Your task to perform on an android device: Go to internet settings Image 0: 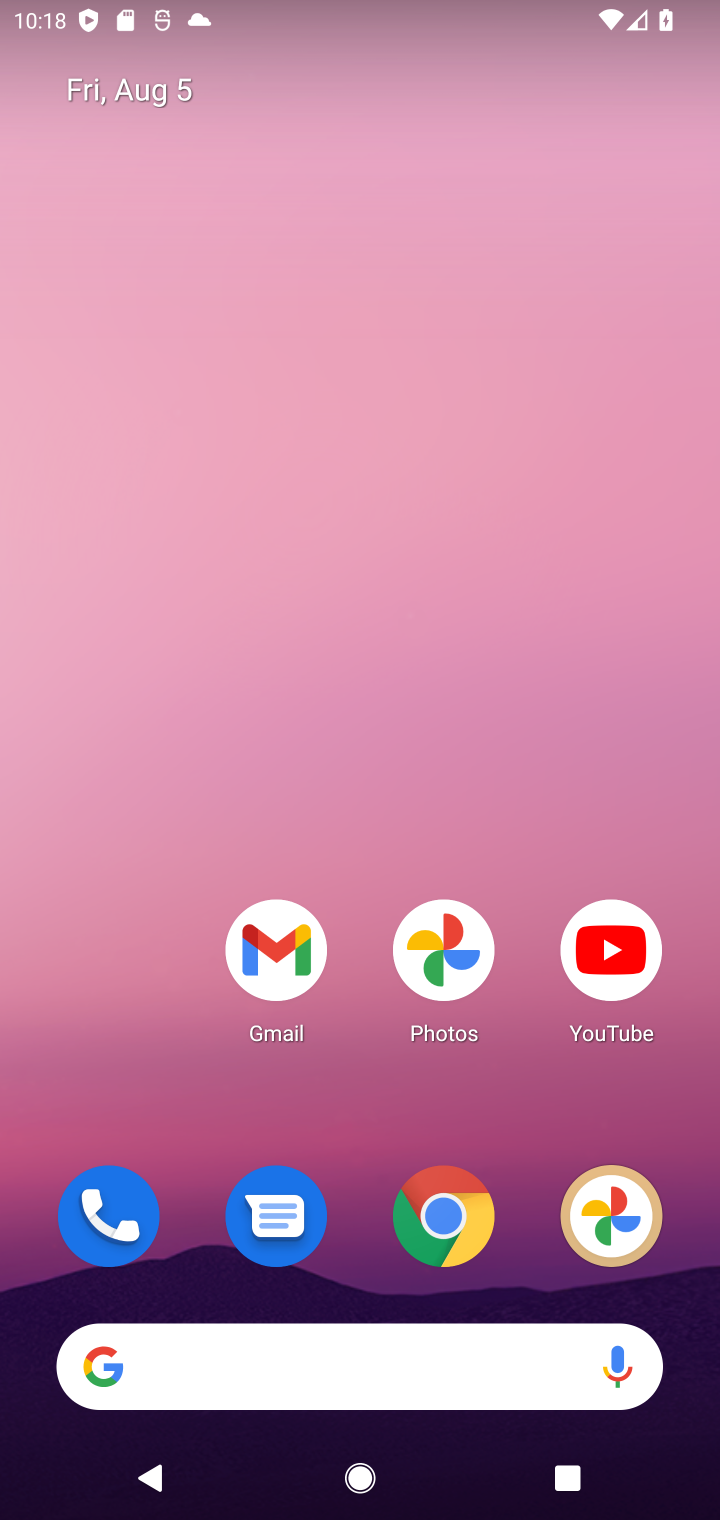
Step 0: drag from (341, 1312) to (396, 45)
Your task to perform on an android device: Go to internet settings Image 1: 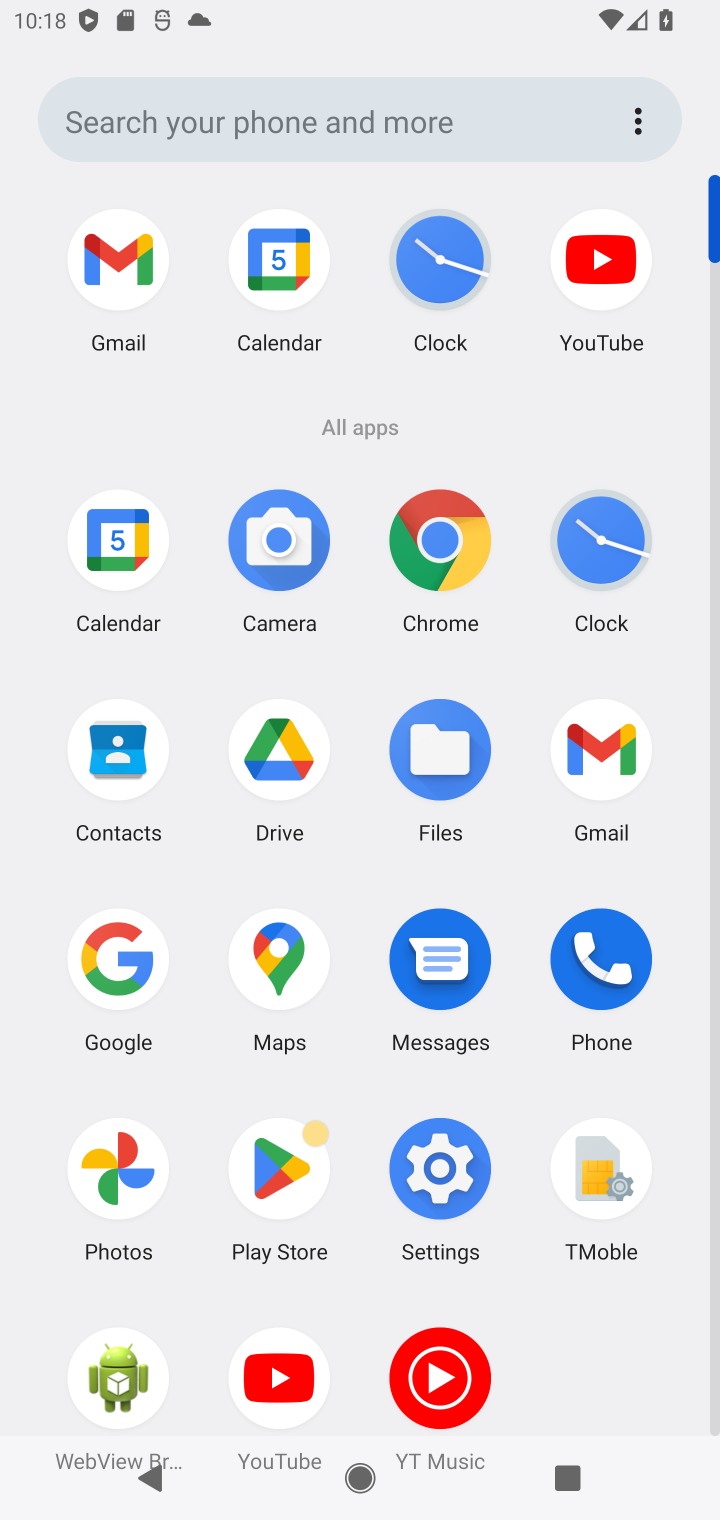
Step 1: click (454, 1162)
Your task to perform on an android device: Go to internet settings Image 2: 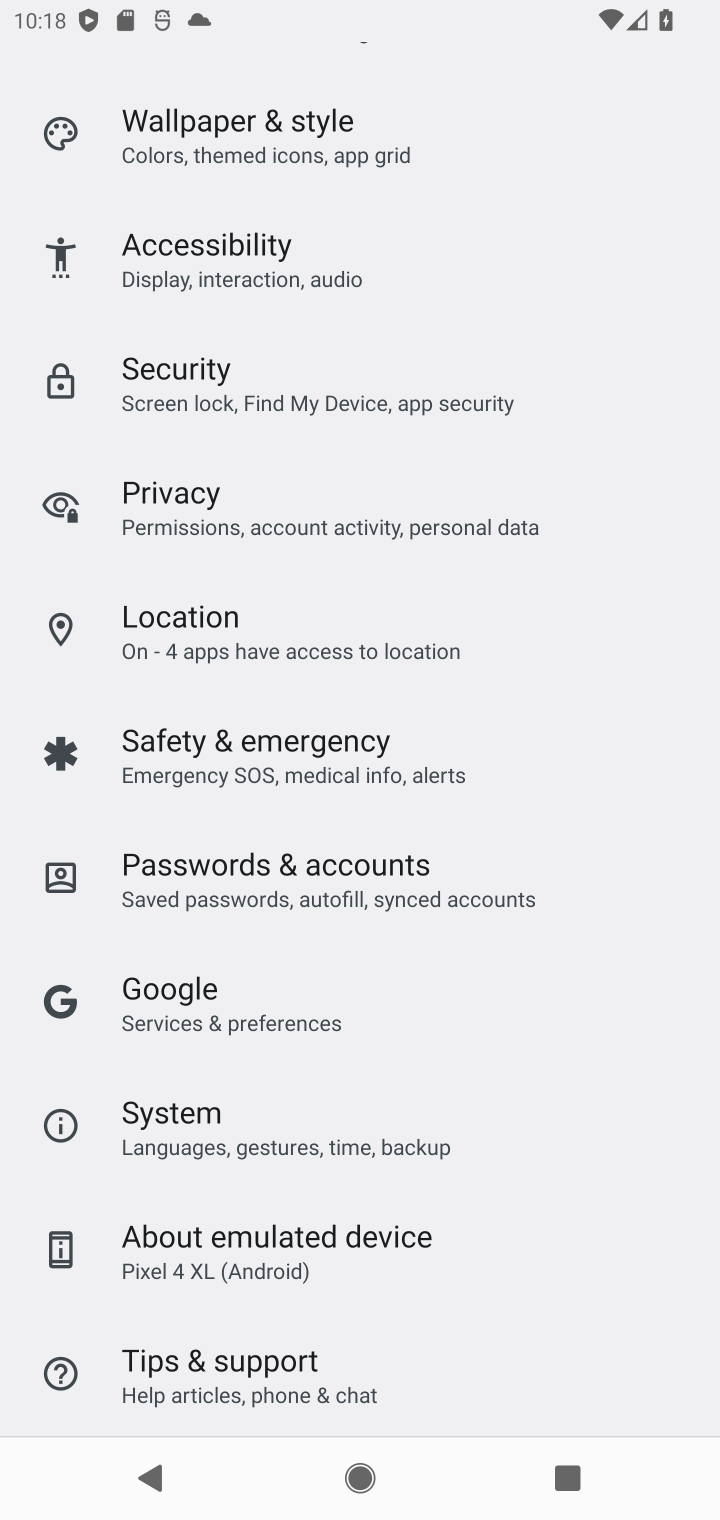
Step 2: drag from (532, 364) to (529, 1367)
Your task to perform on an android device: Go to internet settings Image 3: 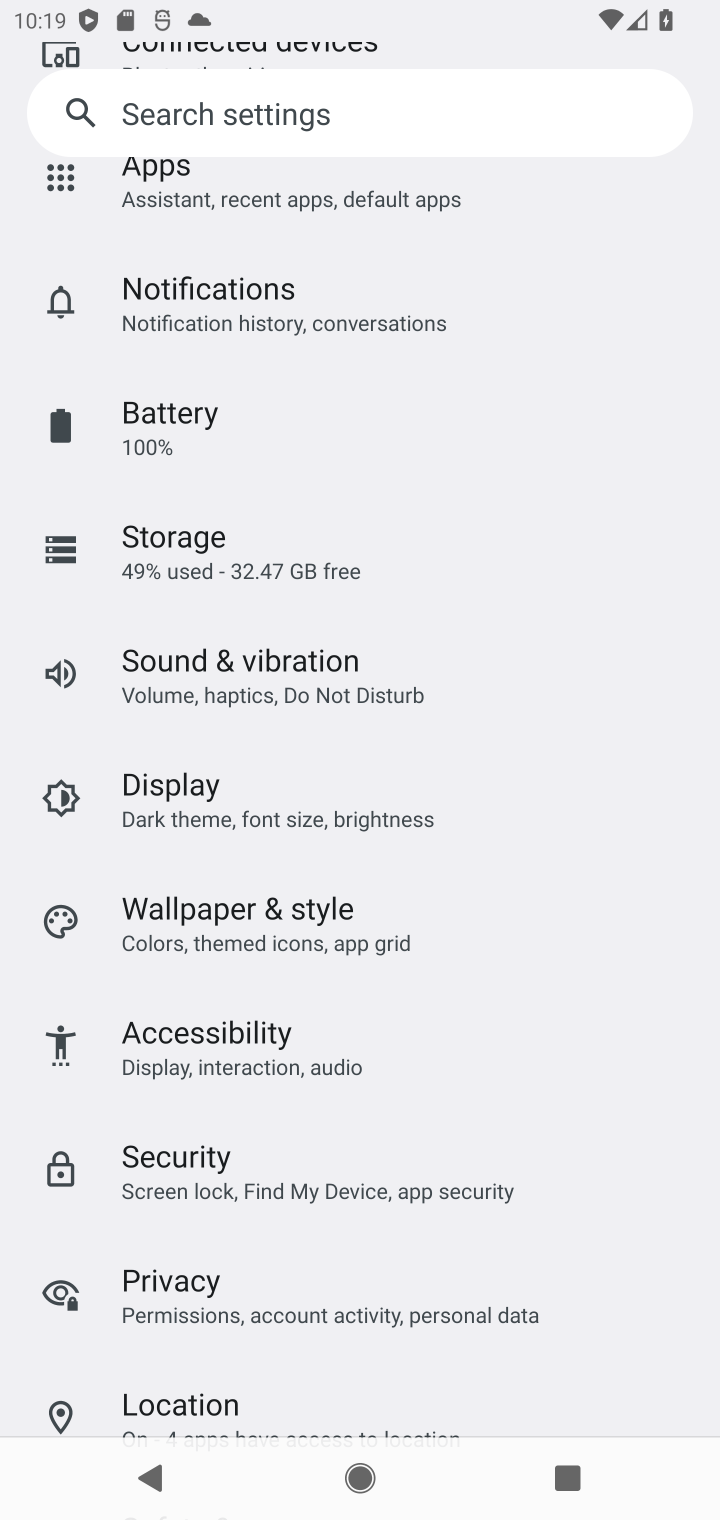
Step 3: drag from (659, 277) to (680, 1157)
Your task to perform on an android device: Go to internet settings Image 4: 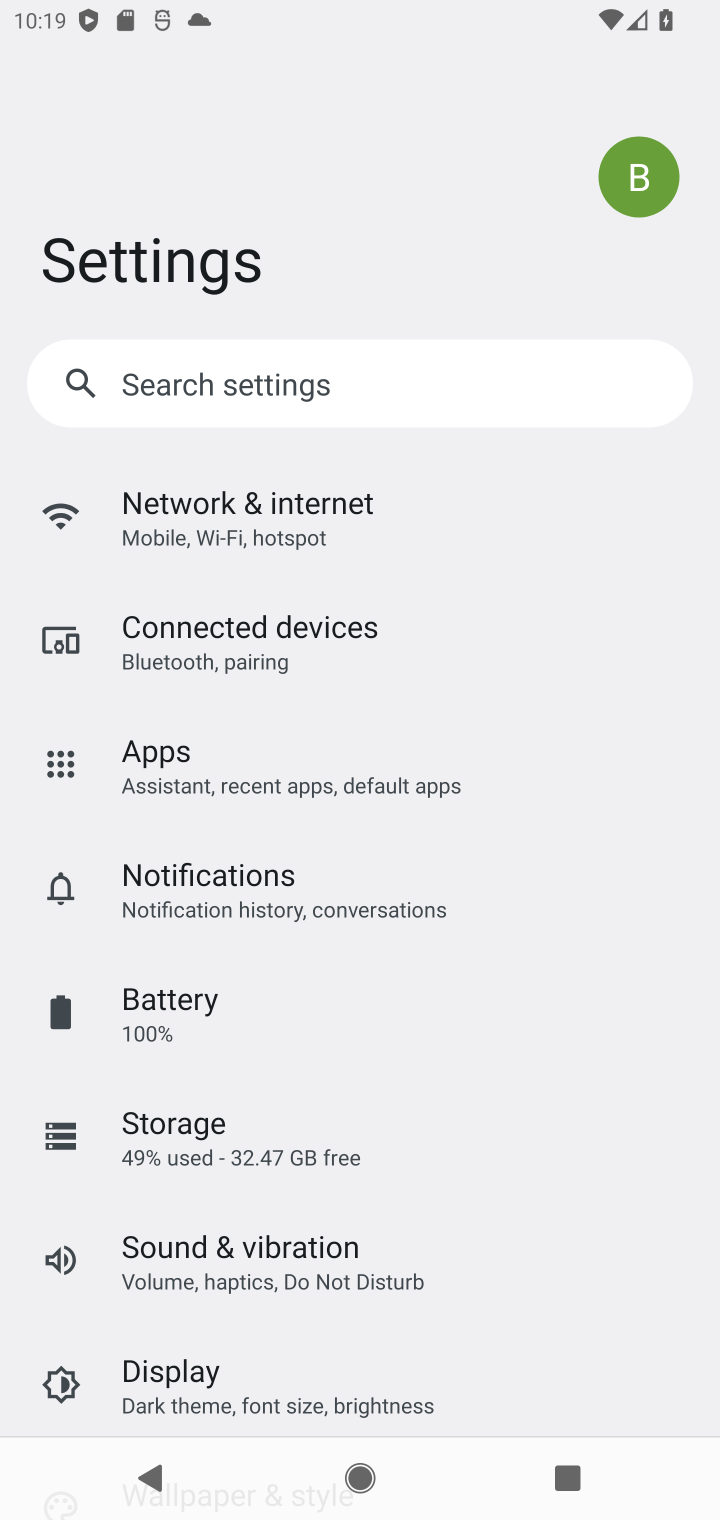
Step 4: click (226, 506)
Your task to perform on an android device: Go to internet settings Image 5: 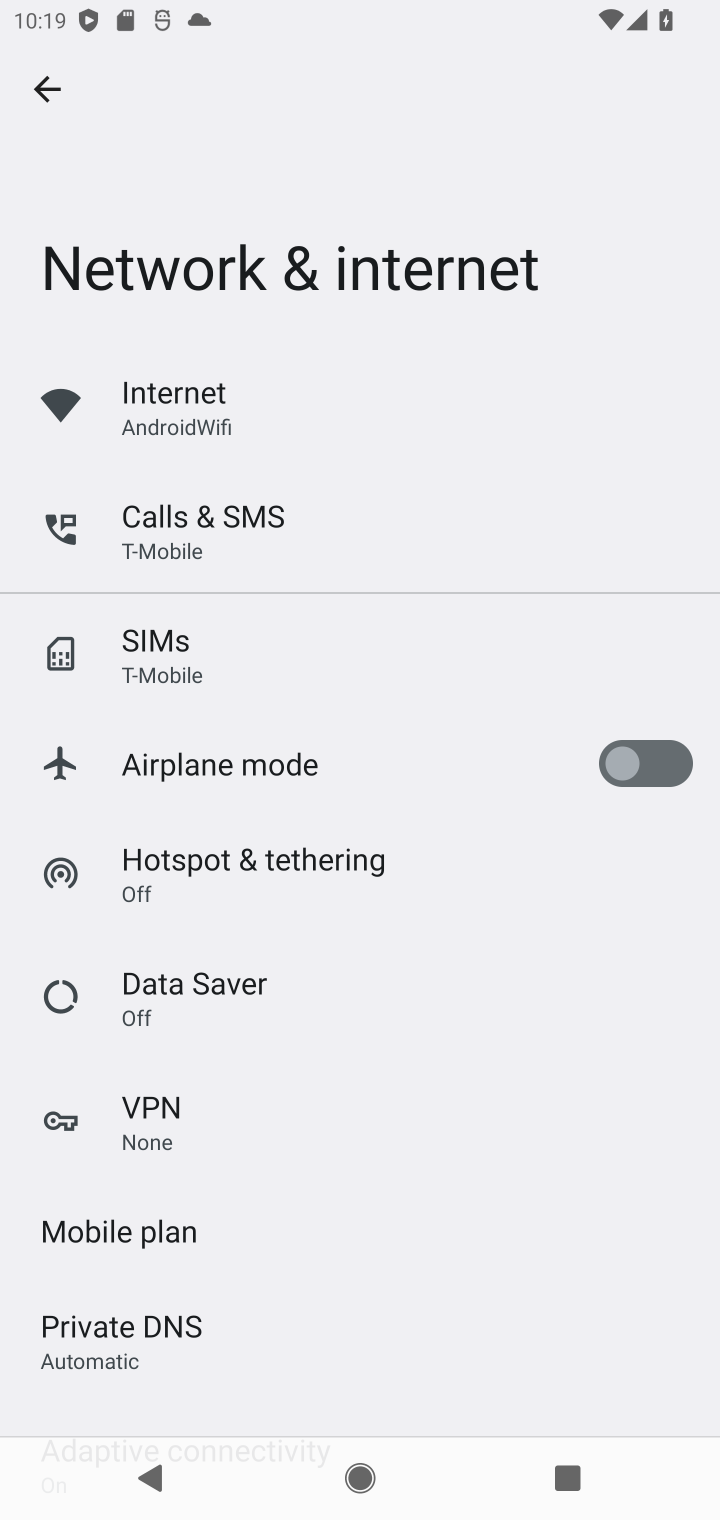
Step 5: task complete